Your task to perform on an android device: Open my contact list Image 0: 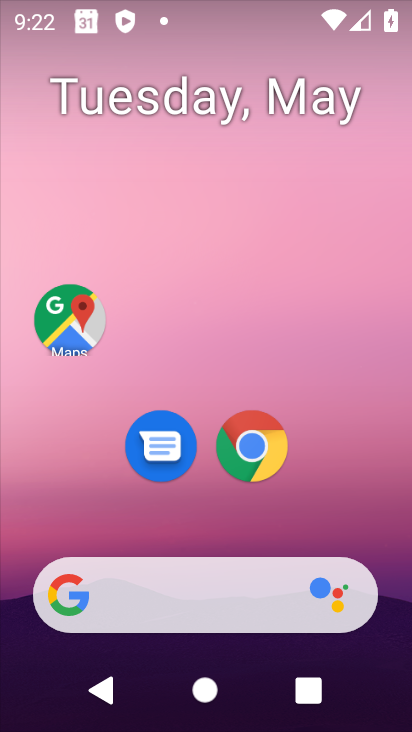
Step 0: drag from (188, 483) to (226, 46)
Your task to perform on an android device: Open my contact list Image 1: 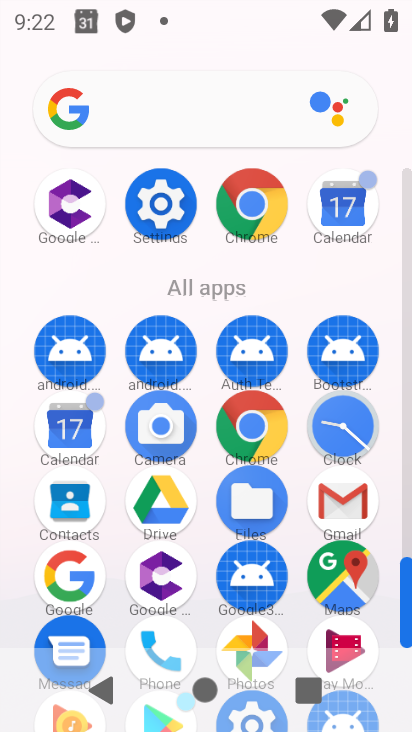
Step 1: click (56, 505)
Your task to perform on an android device: Open my contact list Image 2: 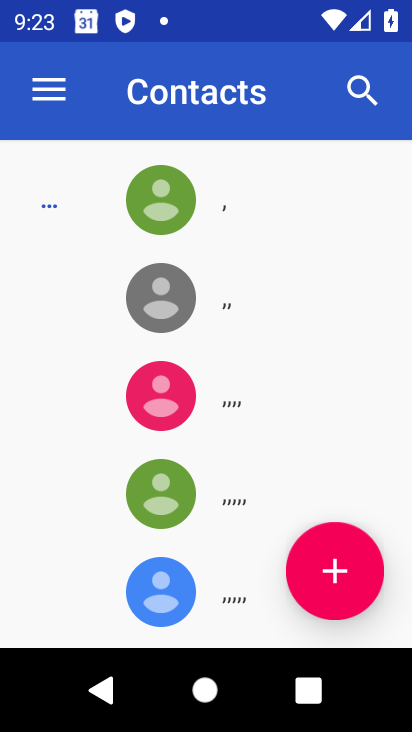
Step 2: task complete